Your task to perform on an android device: turn off location Image 0: 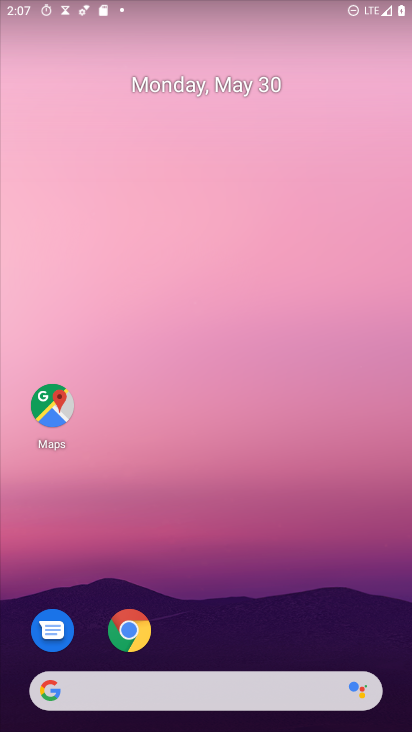
Step 0: drag from (305, 723) to (276, 226)
Your task to perform on an android device: turn off location Image 1: 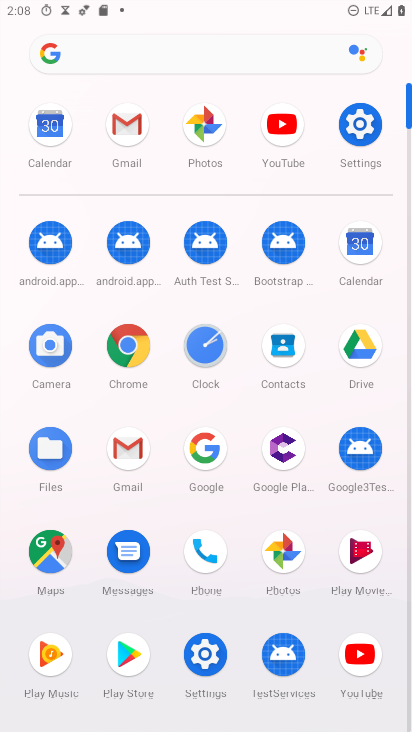
Step 1: click (367, 132)
Your task to perform on an android device: turn off location Image 2: 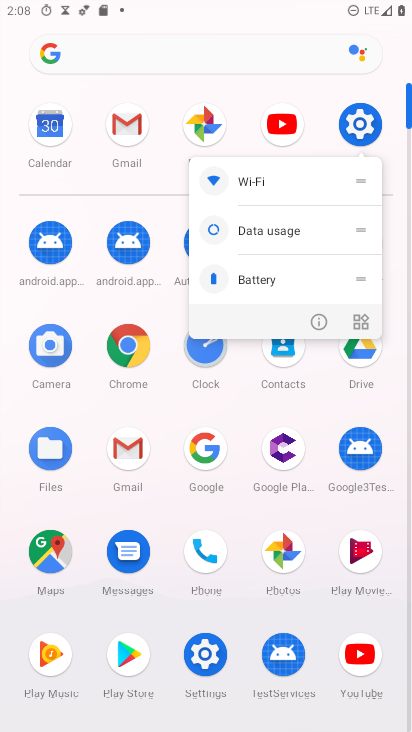
Step 2: click (367, 130)
Your task to perform on an android device: turn off location Image 3: 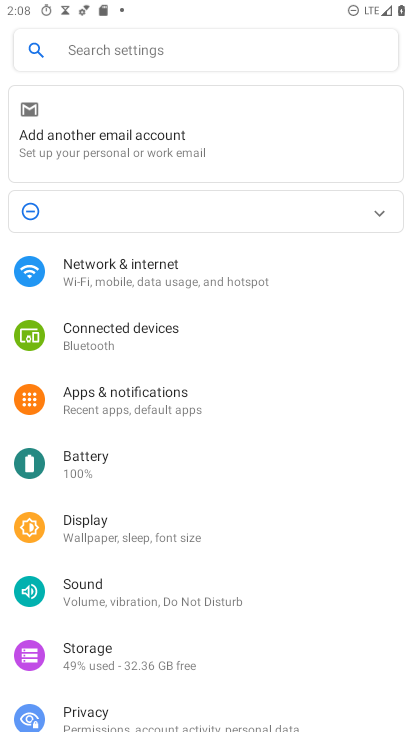
Step 3: click (134, 52)
Your task to perform on an android device: turn off location Image 4: 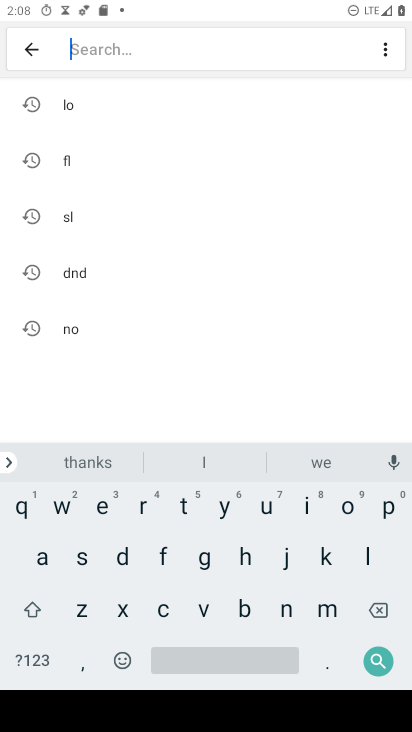
Step 4: click (116, 102)
Your task to perform on an android device: turn off location Image 5: 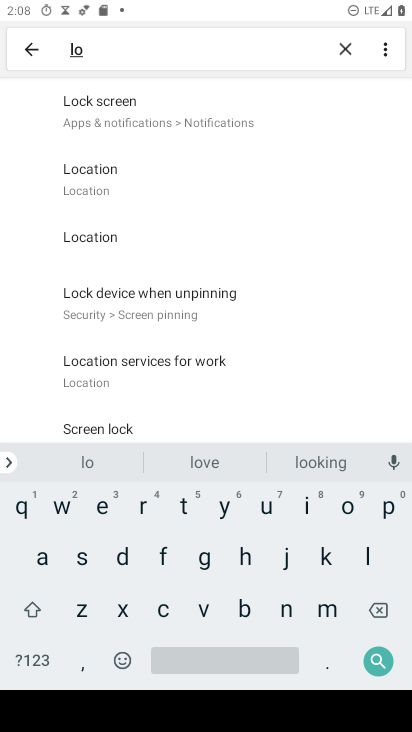
Step 5: click (153, 190)
Your task to perform on an android device: turn off location Image 6: 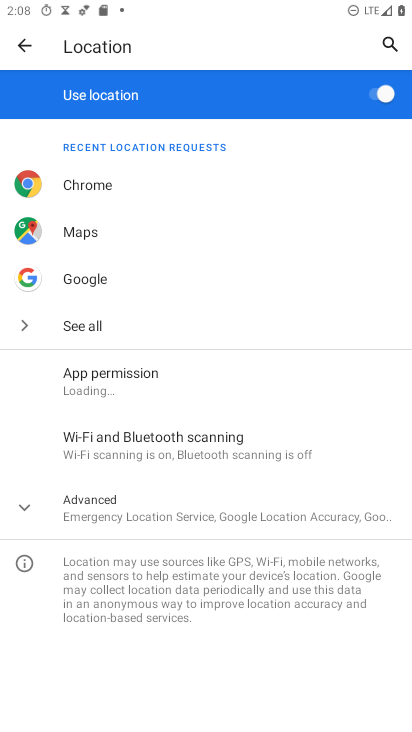
Step 6: click (380, 103)
Your task to perform on an android device: turn off location Image 7: 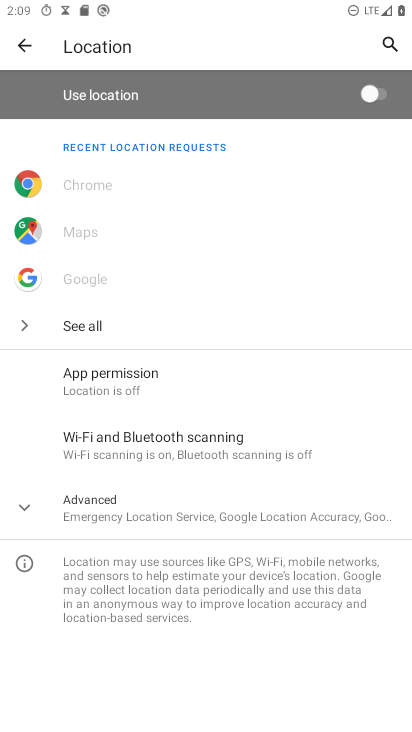
Step 7: task complete